Your task to perform on an android device: Open the Play Movies app and select the watchlist tab. Image 0: 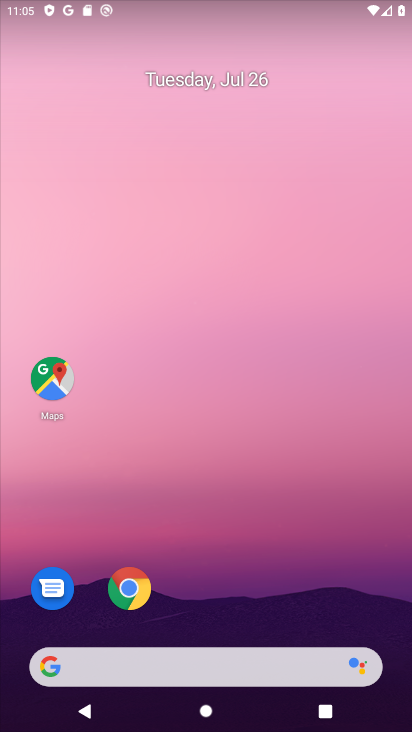
Step 0: drag from (256, 690) to (233, 103)
Your task to perform on an android device: Open the Play Movies app and select the watchlist tab. Image 1: 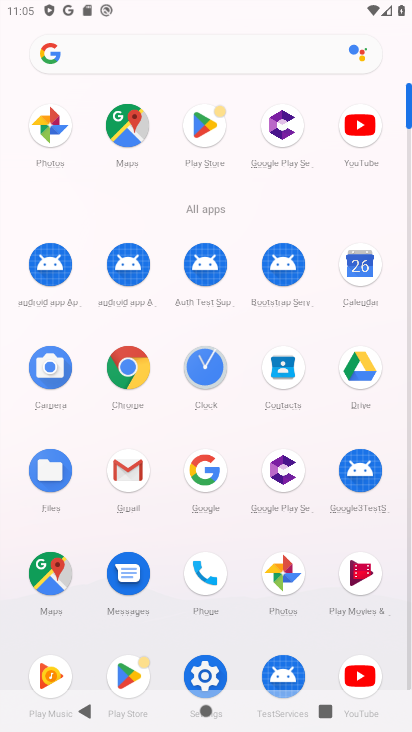
Step 1: click (353, 567)
Your task to perform on an android device: Open the Play Movies app and select the watchlist tab. Image 2: 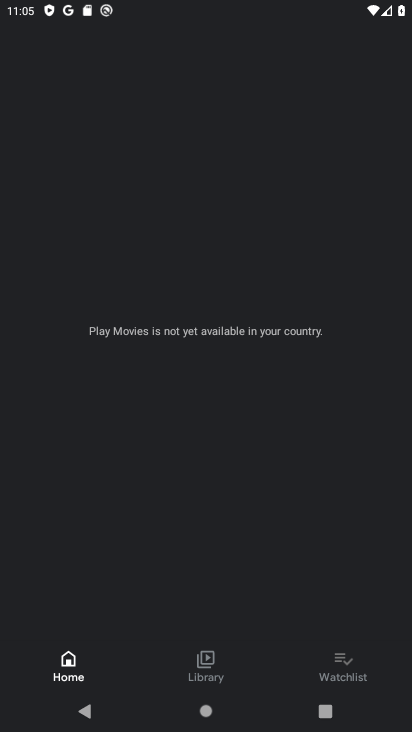
Step 2: click (338, 661)
Your task to perform on an android device: Open the Play Movies app and select the watchlist tab. Image 3: 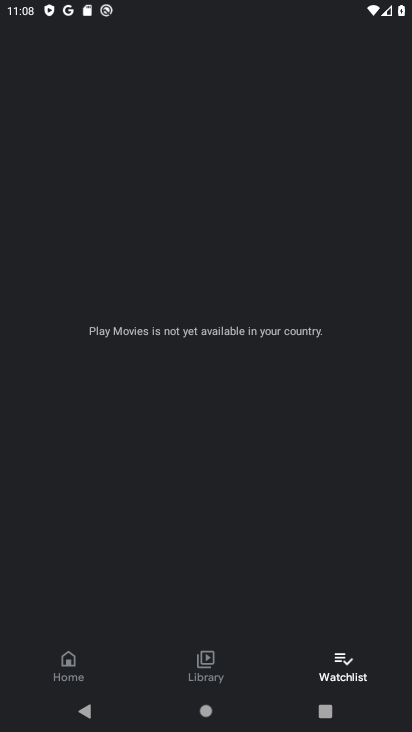
Step 3: task complete